Your task to perform on an android device: open app "Spotify" (install if not already installed) and enter user name: "infallible@icloud.com" and password: "implored" Image 0: 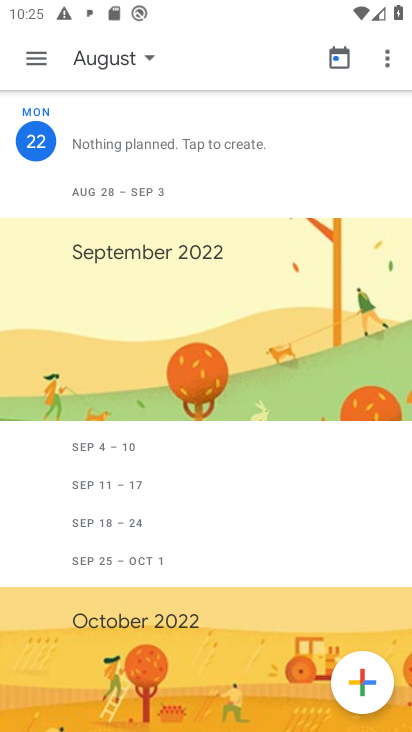
Step 0: press home button
Your task to perform on an android device: open app "Spotify" (install if not already installed) and enter user name: "infallible@icloud.com" and password: "implored" Image 1: 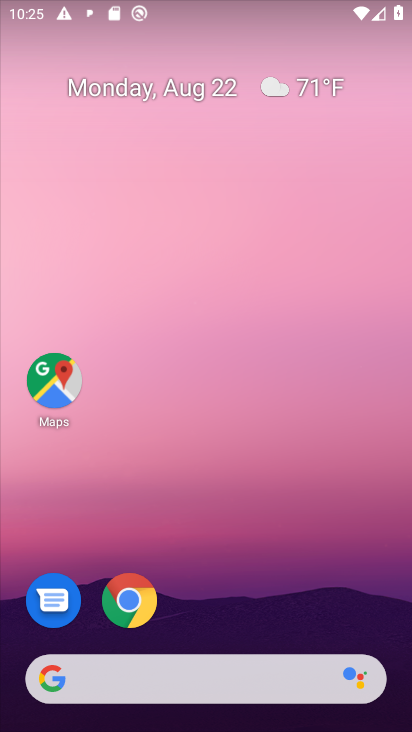
Step 1: drag from (215, 579) to (285, 97)
Your task to perform on an android device: open app "Spotify" (install if not already installed) and enter user name: "infallible@icloud.com" and password: "implored" Image 2: 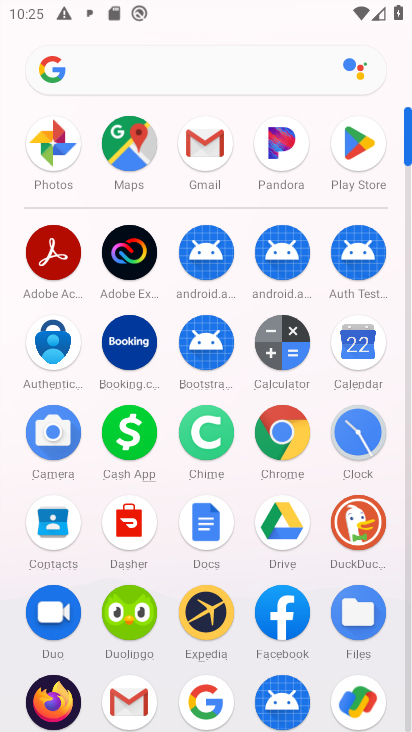
Step 2: click (336, 136)
Your task to perform on an android device: open app "Spotify" (install if not already installed) and enter user name: "infallible@icloud.com" and password: "implored" Image 3: 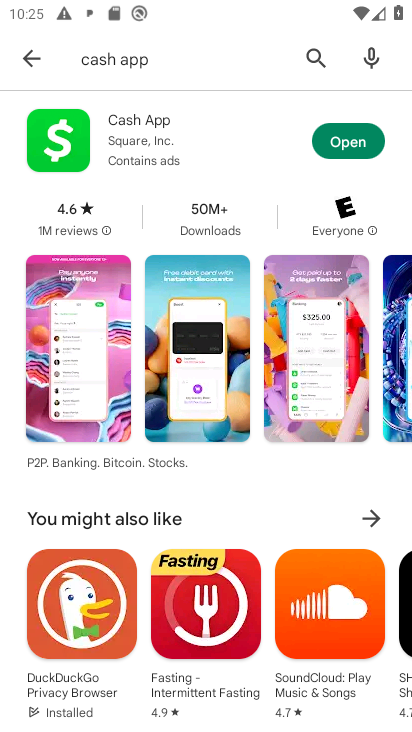
Step 3: click (321, 44)
Your task to perform on an android device: open app "Spotify" (install if not already installed) and enter user name: "infallible@icloud.com" and password: "implored" Image 4: 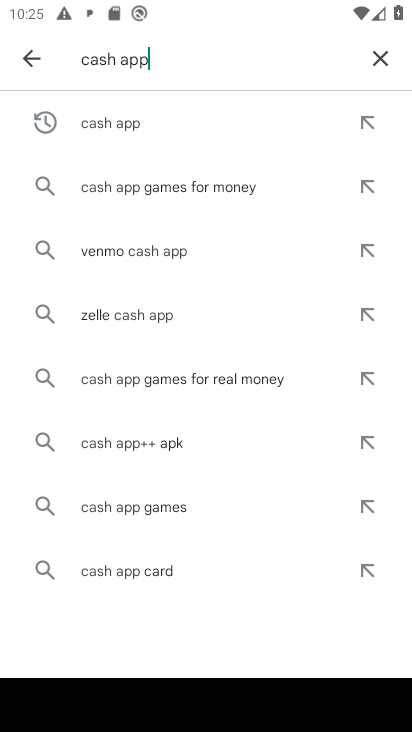
Step 4: click (377, 52)
Your task to perform on an android device: open app "Spotify" (install if not already installed) and enter user name: "infallible@icloud.com" and password: "implored" Image 5: 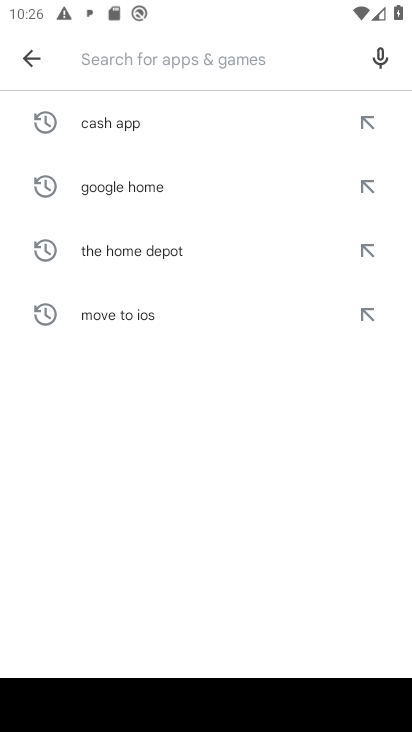
Step 5: type "Spotify"
Your task to perform on an android device: open app "Spotify" (install if not already installed) and enter user name: "infallible@icloud.com" and password: "implored" Image 6: 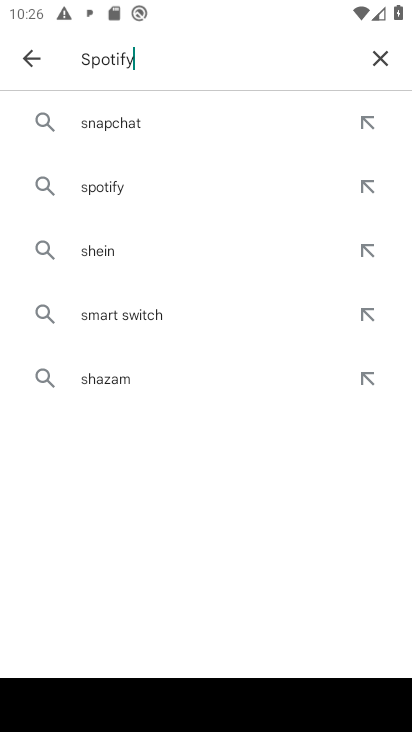
Step 6: type ""
Your task to perform on an android device: open app "Spotify" (install if not already installed) and enter user name: "infallible@icloud.com" and password: "implored" Image 7: 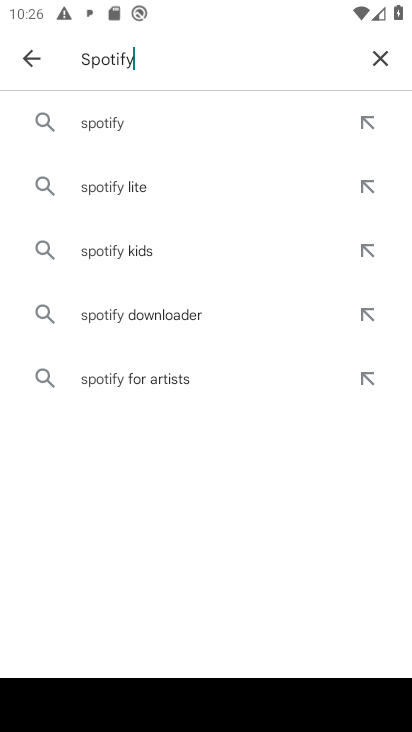
Step 7: click (152, 117)
Your task to perform on an android device: open app "Spotify" (install if not already installed) and enter user name: "infallible@icloud.com" and password: "implored" Image 8: 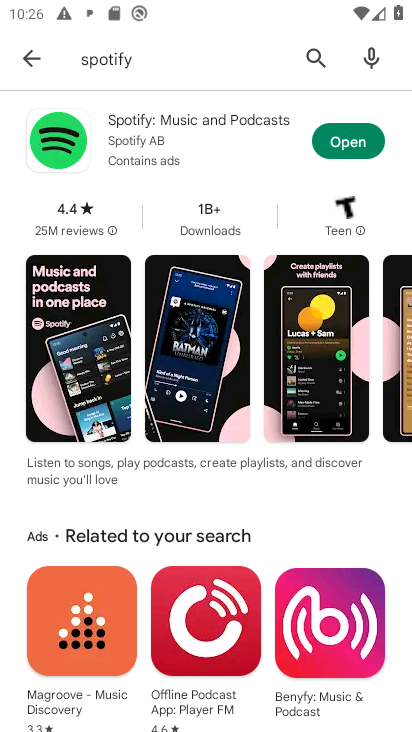
Step 8: click (353, 142)
Your task to perform on an android device: open app "Spotify" (install if not already installed) and enter user name: "infallible@icloud.com" and password: "implored" Image 9: 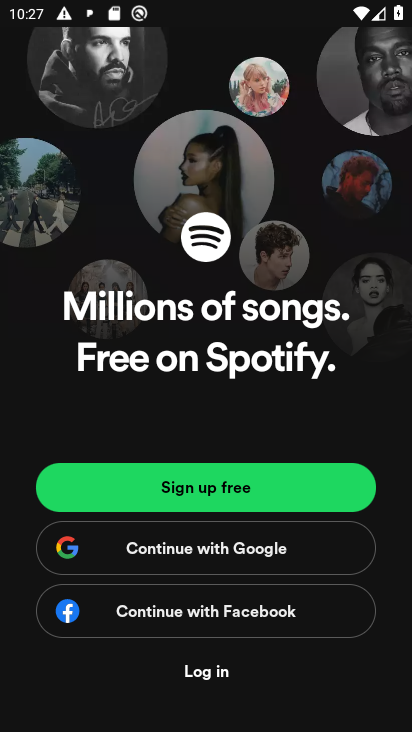
Step 9: task complete